Your task to perform on an android device: Go to Google Image 0: 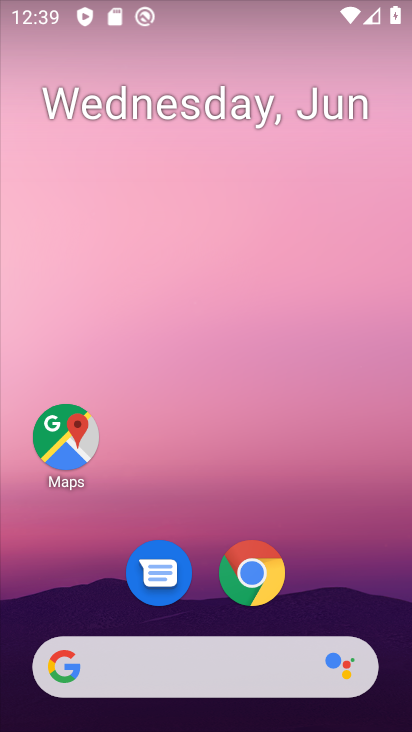
Step 0: drag from (370, 550) to (369, 139)
Your task to perform on an android device: Go to Google Image 1: 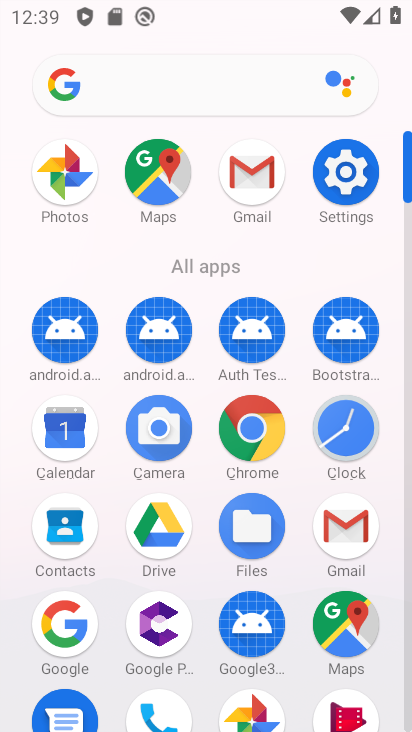
Step 1: click (62, 634)
Your task to perform on an android device: Go to Google Image 2: 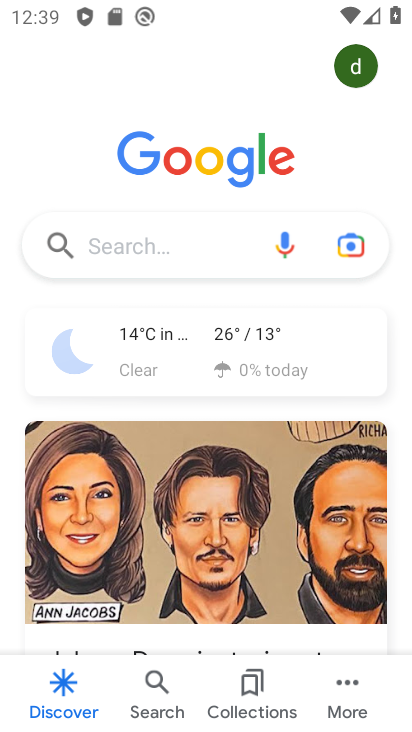
Step 2: task complete